Your task to perform on an android device: Go to eBay Image 0: 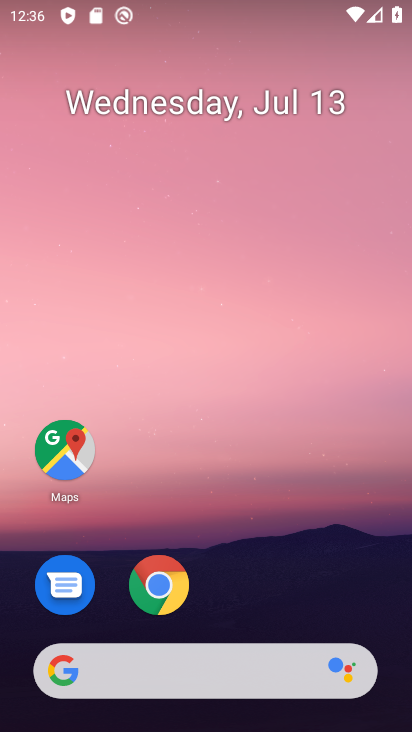
Step 0: click (170, 592)
Your task to perform on an android device: Go to eBay Image 1: 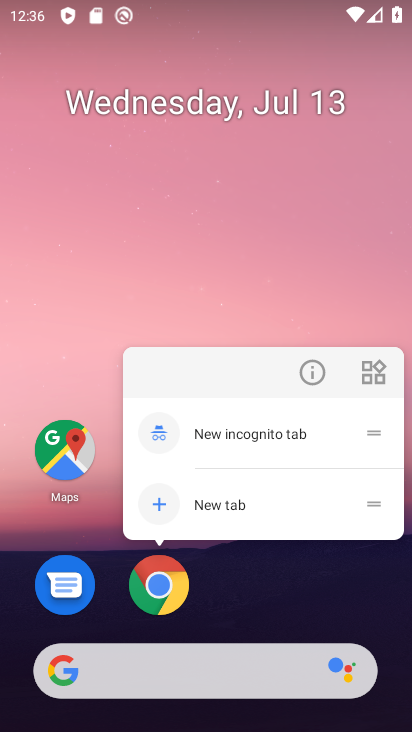
Step 1: click (170, 592)
Your task to perform on an android device: Go to eBay Image 2: 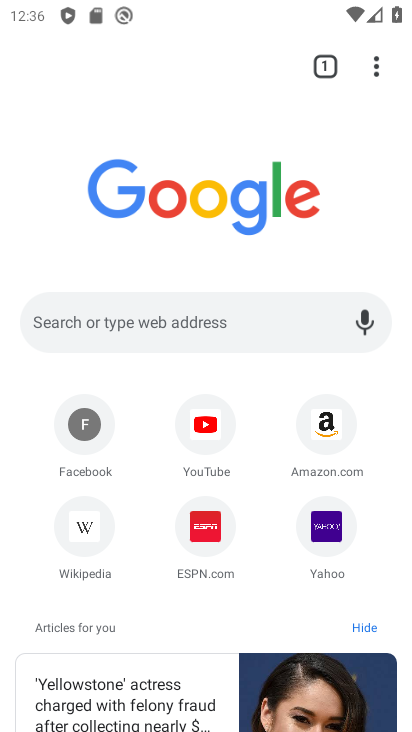
Step 2: click (158, 322)
Your task to perform on an android device: Go to eBay Image 3: 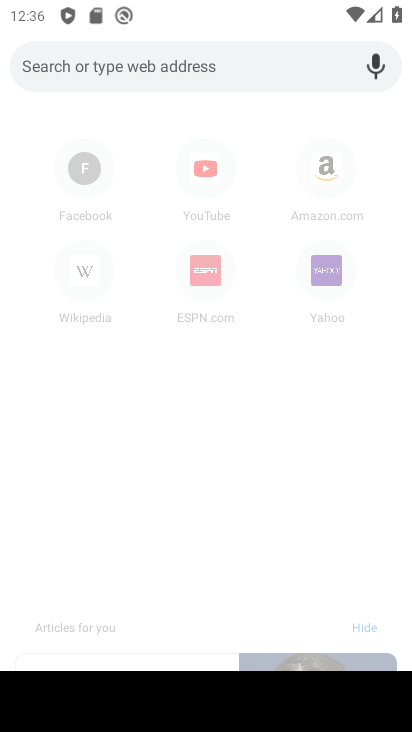
Step 3: type "ebay"
Your task to perform on an android device: Go to eBay Image 4: 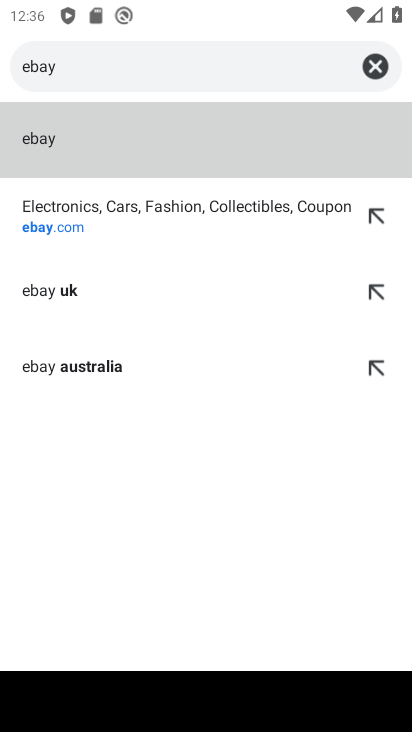
Step 4: click (175, 216)
Your task to perform on an android device: Go to eBay Image 5: 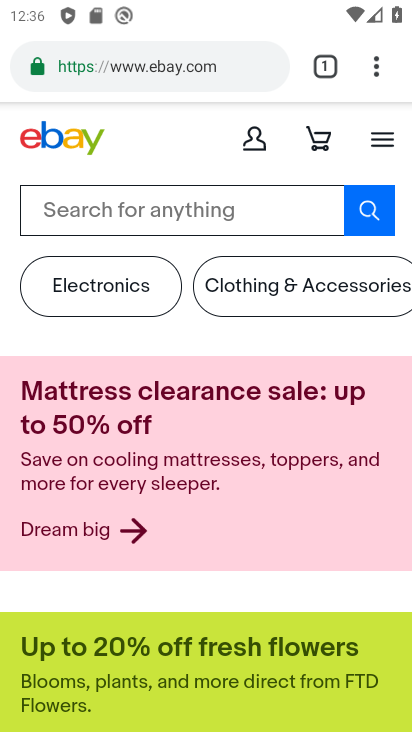
Step 5: drag from (239, 668) to (303, 134)
Your task to perform on an android device: Go to eBay Image 6: 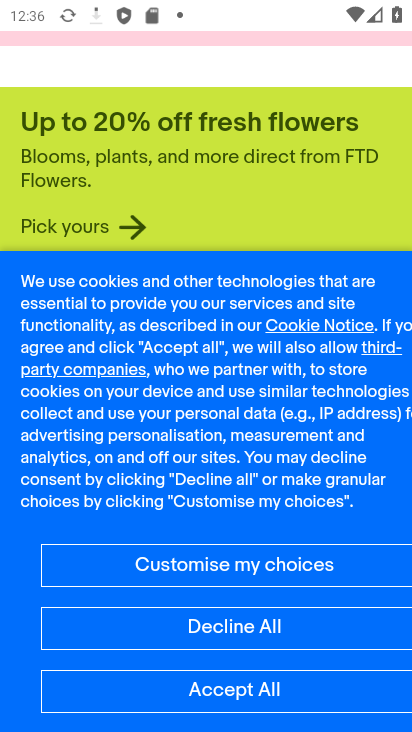
Step 6: click (275, 692)
Your task to perform on an android device: Go to eBay Image 7: 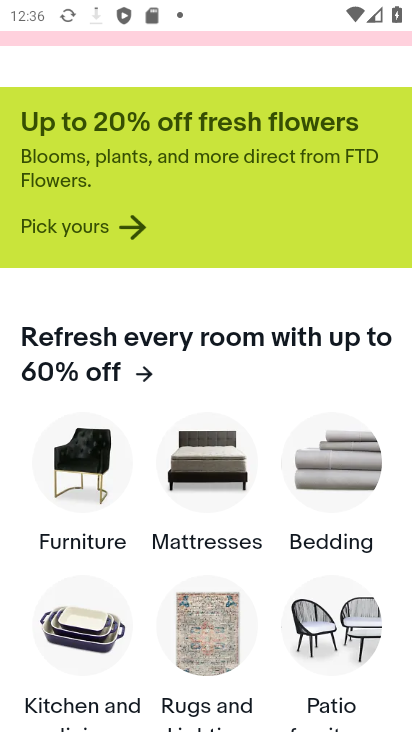
Step 7: task complete